Your task to perform on an android device: find photos in the google photos app Image 0: 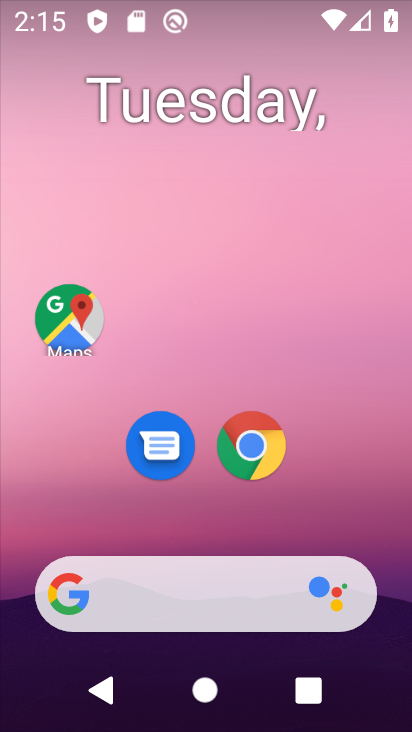
Step 0: drag from (147, 563) to (260, 118)
Your task to perform on an android device: find photos in the google photos app Image 1: 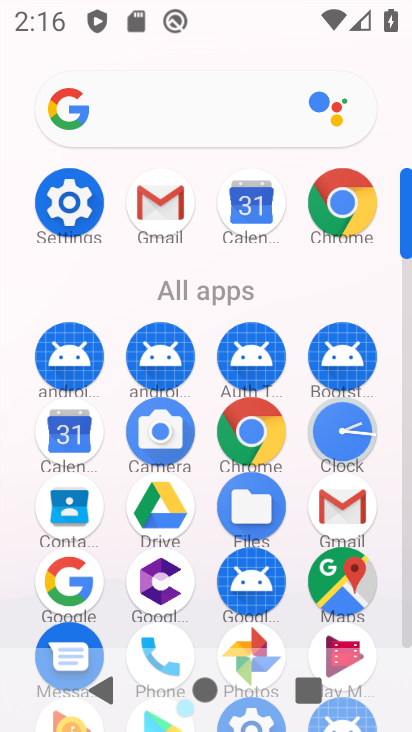
Step 1: drag from (175, 605) to (238, 443)
Your task to perform on an android device: find photos in the google photos app Image 2: 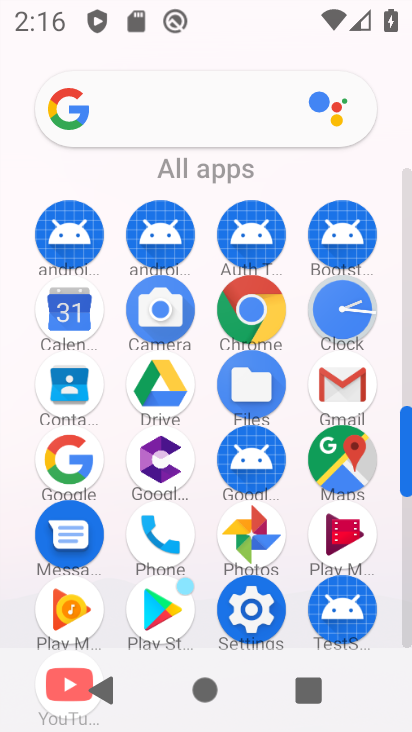
Step 2: click (241, 542)
Your task to perform on an android device: find photos in the google photos app Image 3: 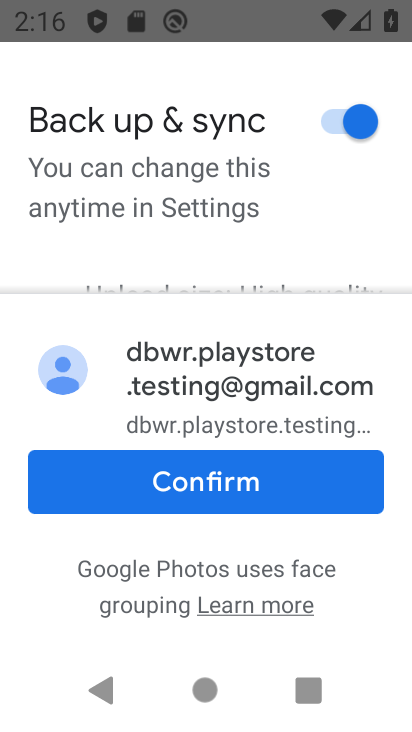
Step 3: click (247, 510)
Your task to perform on an android device: find photos in the google photos app Image 4: 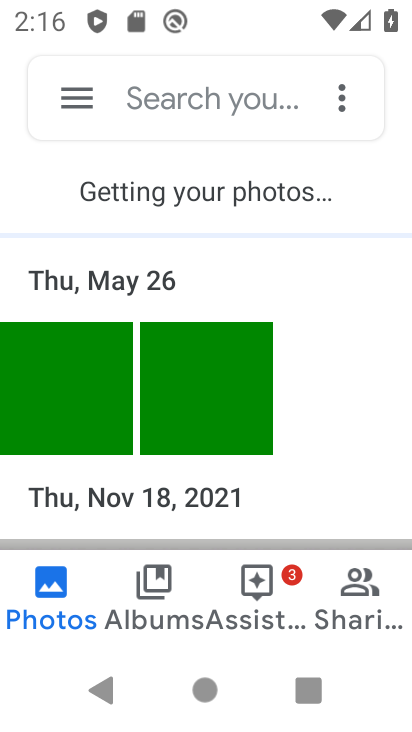
Step 4: task complete